Your task to perform on an android device: Search for "dell xps" on ebay.com, select the first entry, and add it to the cart. Image 0: 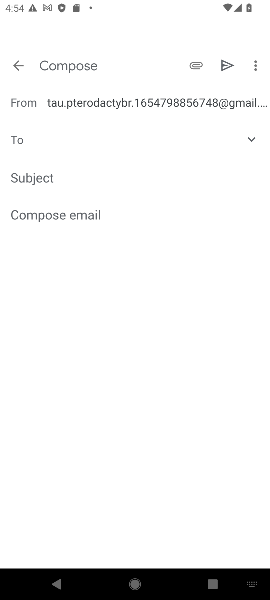
Step 0: press home button
Your task to perform on an android device: Search for "dell xps" on ebay.com, select the first entry, and add it to the cart. Image 1: 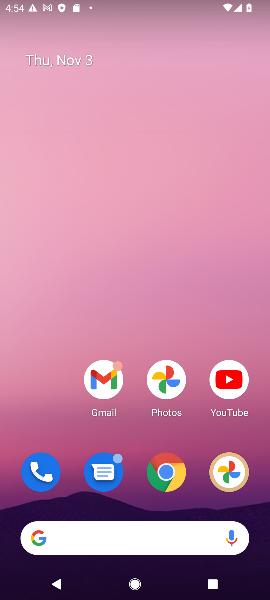
Step 1: click (160, 478)
Your task to perform on an android device: Search for "dell xps" on ebay.com, select the first entry, and add it to the cart. Image 2: 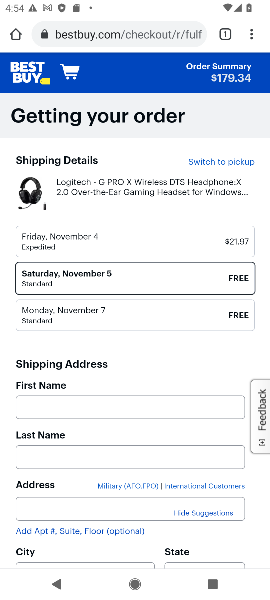
Step 2: click (78, 35)
Your task to perform on an android device: Search for "dell xps" on ebay.com, select the first entry, and add it to the cart. Image 3: 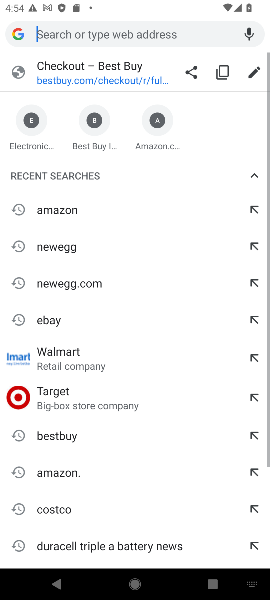
Step 3: type "ebay.com"
Your task to perform on an android device: Search for "dell xps" on ebay.com, select the first entry, and add it to the cart. Image 4: 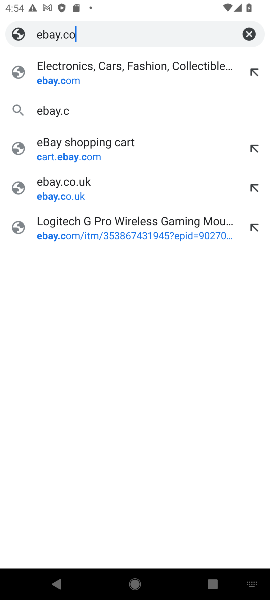
Step 4: type ""
Your task to perform on an android device: Search for "dell xps" on ebay.com, select the first entry, and add it to the cart. Image 5: 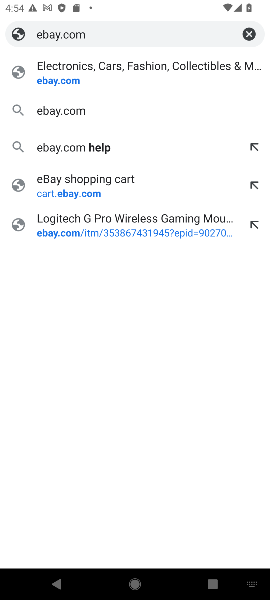
Step 5: click (134, 77)
Your task to perform on an android device: Search for "dell xps" on ebay.com, select the first entry, and add it to the cart. Image 6: 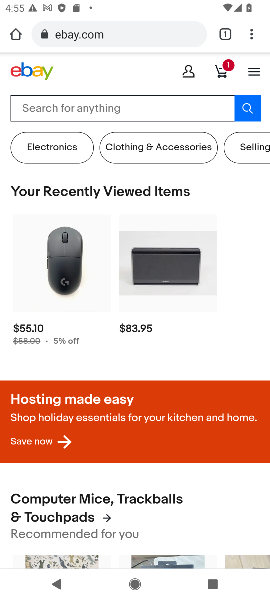
Step 6: click (77, 112)
Your task to perform on an android device: Search for "dell xps" on ebay.com, select the first entry, and add it to the cart. Image 7: 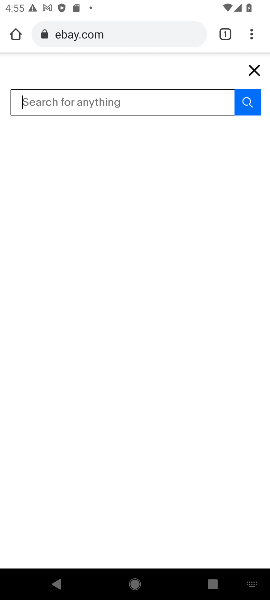
Step 7: type "dell xps"
Your task to perform on an android device: Search for "dell xps" on ebay.com, select the first entry, and add it to the cart. Image 8: 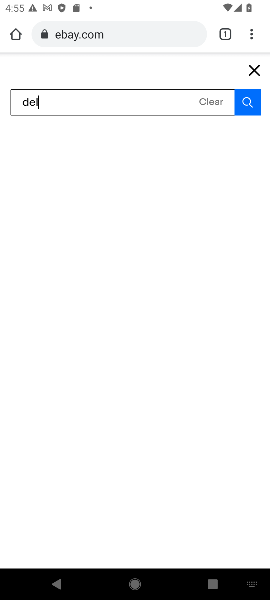
Step 8: type ""
Your task to perform on an android device: Search for "dell xps" on ebay.com, select the first entry, and add it to the cart. Image 9: 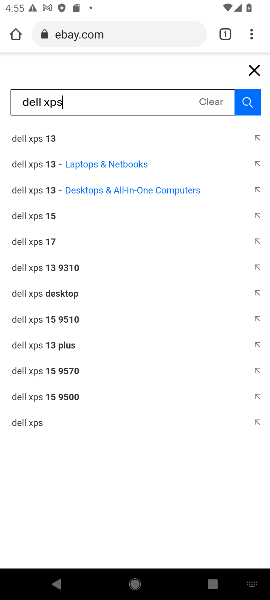
Step 9: click (78, 144)
Your task to perform on an android device: Search for "dell xps" on ebay.com, select the first entry, and add it to the cart. Image 10: 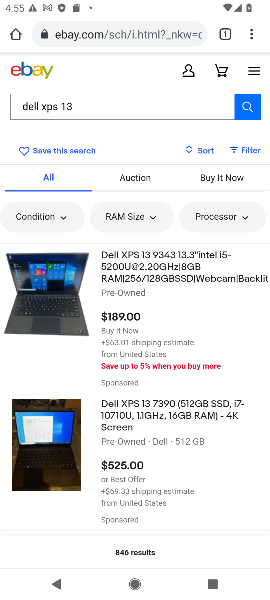
Step 10: click (154, 280)
Your task to perform on an android device: Search for "dell xps" on ebay.com, select the first entry, and add it to the cart. Image 11: 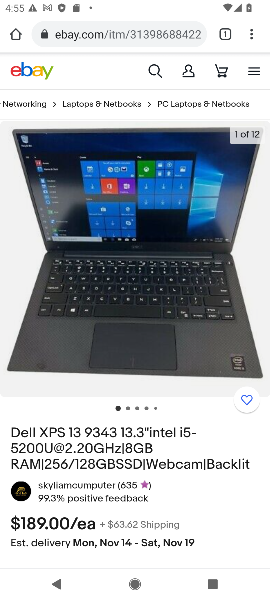
Step 11: drag from (133, 448) to (139, 134)
Your task to perform on an android device: Search for "dell xps" on ebay.com, select the first entry, and add it to the cart. Image 12: 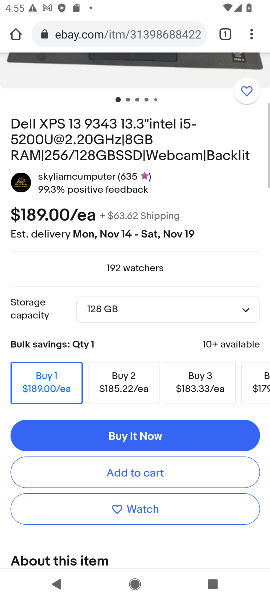
Step 12: drag from (122, 480) to (144, 320)
Your task to perform on an android device: Search for "dell xps" on ebay.com, select the first entry, and add it to the cart. Image 13: 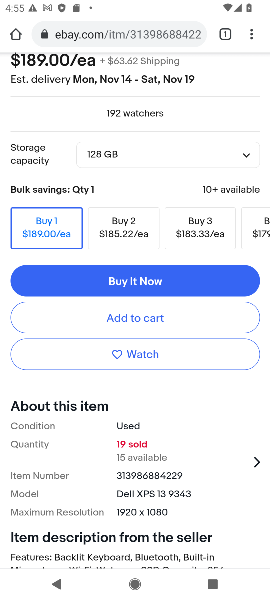
Step 13: click (137, 311)
Your task to perform on an android device: Search for "dell xps" on ebay.com, select the first entry, and add it to the cart. Image 14: 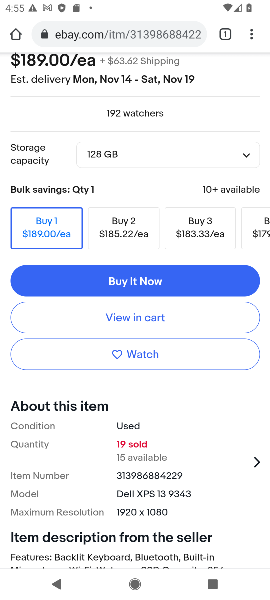
Step 14: click (137, 317)
Your task to perform on an android device: Search for "dell xps" on ebay.com, select the first entry, and add it to the cart. Image 15: 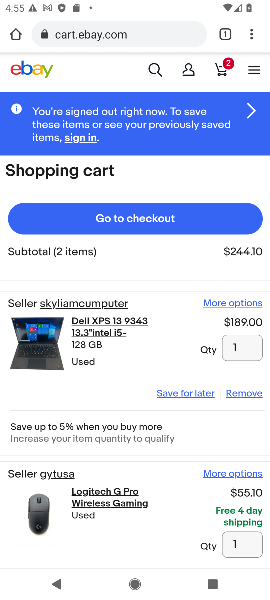
Step 15: task complete